Your task to perform on an android device: open app "Gmail" (install if not already installed), go to login, and select forgot password Image 0: 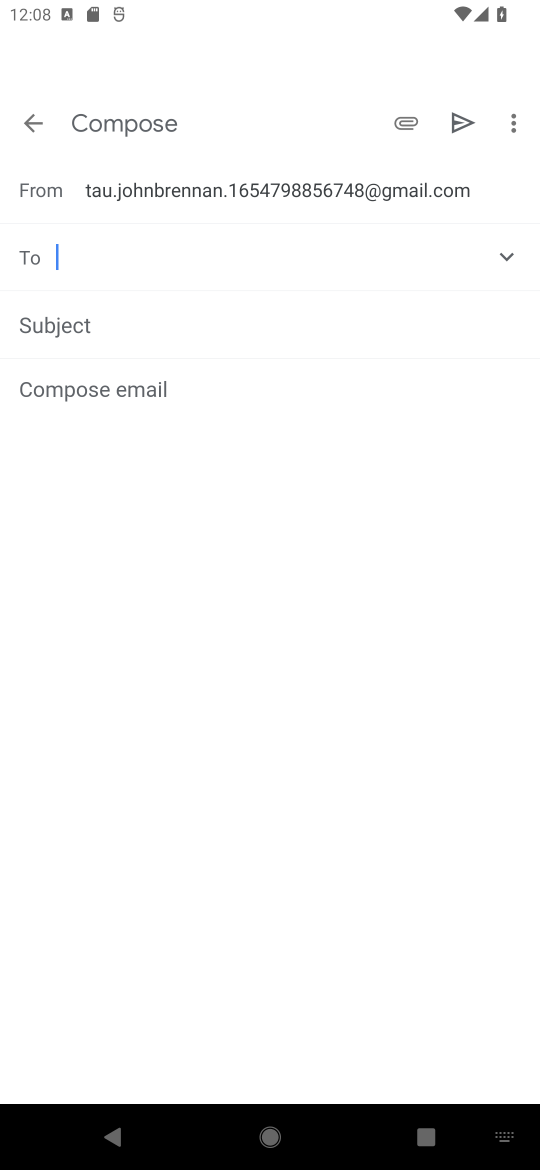
Step 0: press home button
Your task to perform on an android device: open app "Gmail" (install if not already installed), go to login, and select forgot password Image 1: 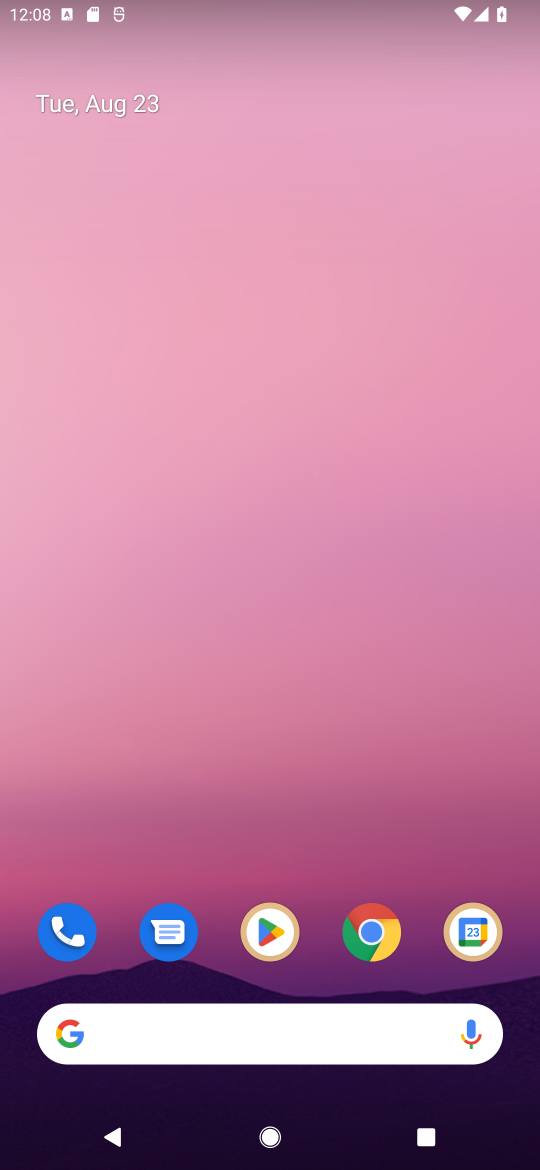
Step 1: click (258, 921)
Your task to perform on an android device: open app "Gmail" (install if not already installed), go to login, and select forgot password Image 2: 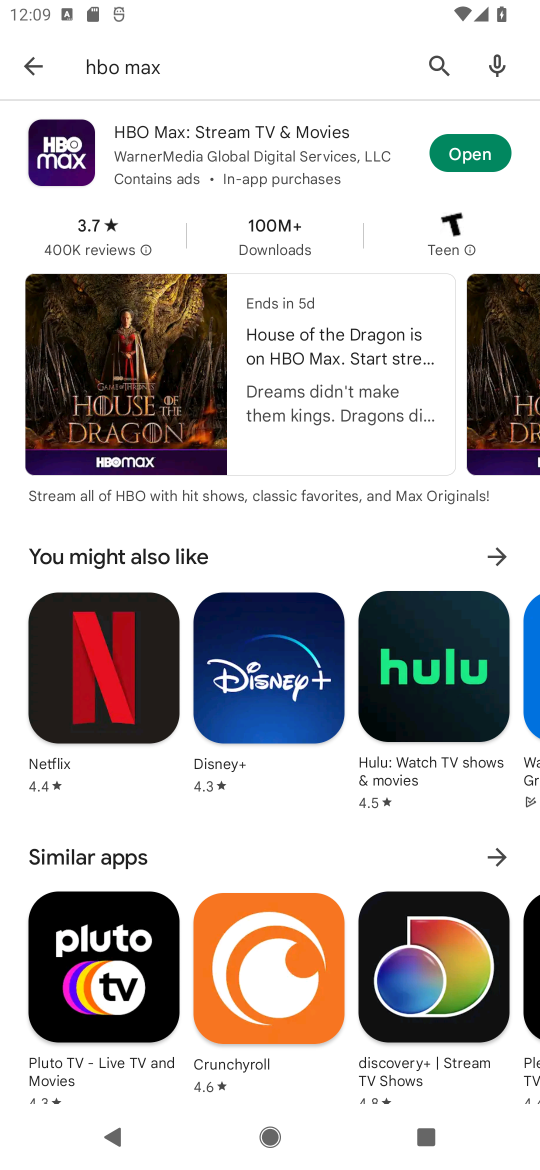
Step 2: click (435, 59)
Your task to perform on an android device: open app "Gmail" (install if not already installed), go to login, and select forgot password Image 3: 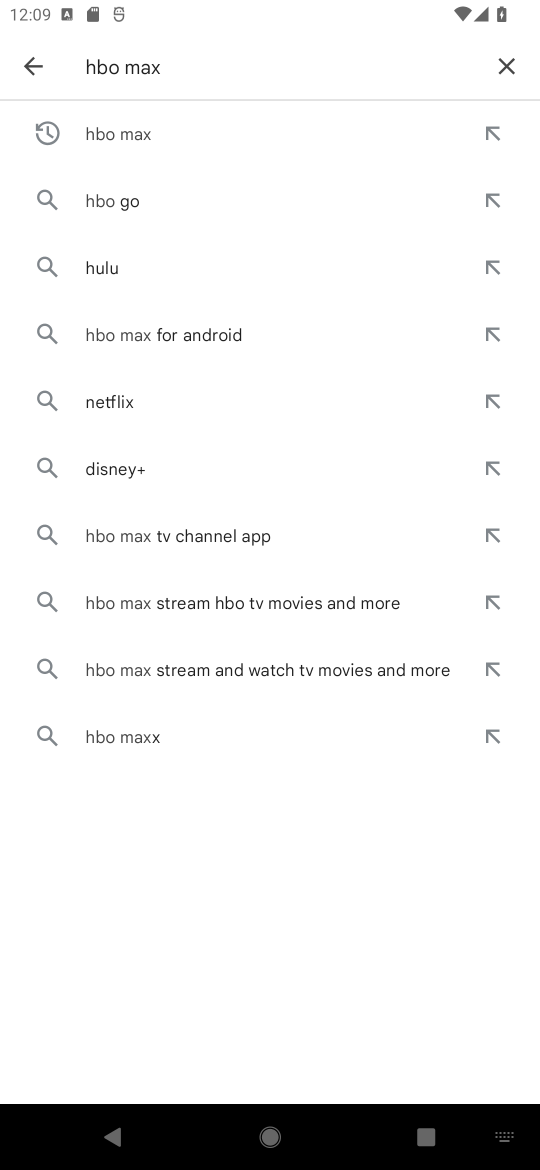
Step 3: click (504, 68)
Your task to perform on an android device: open app "Gmail" (install if not already installed), go to login, and select forgot password Image 4: 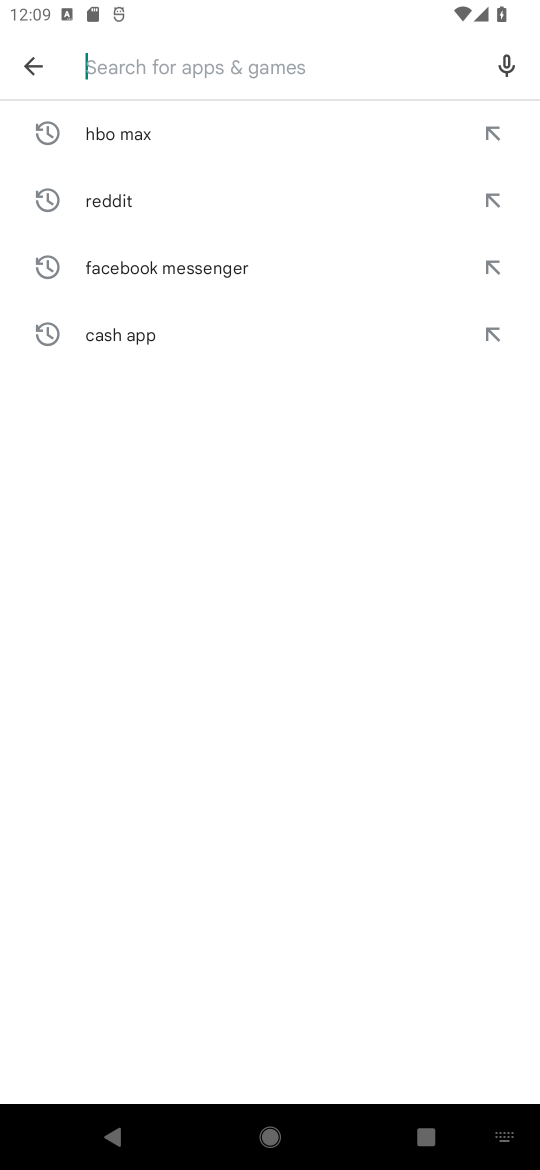
Step 4: click (172, 57)
Your task to perform on an android device: open app "Gmail" (install if not already installed), go to login, and select forgot password Image 5: 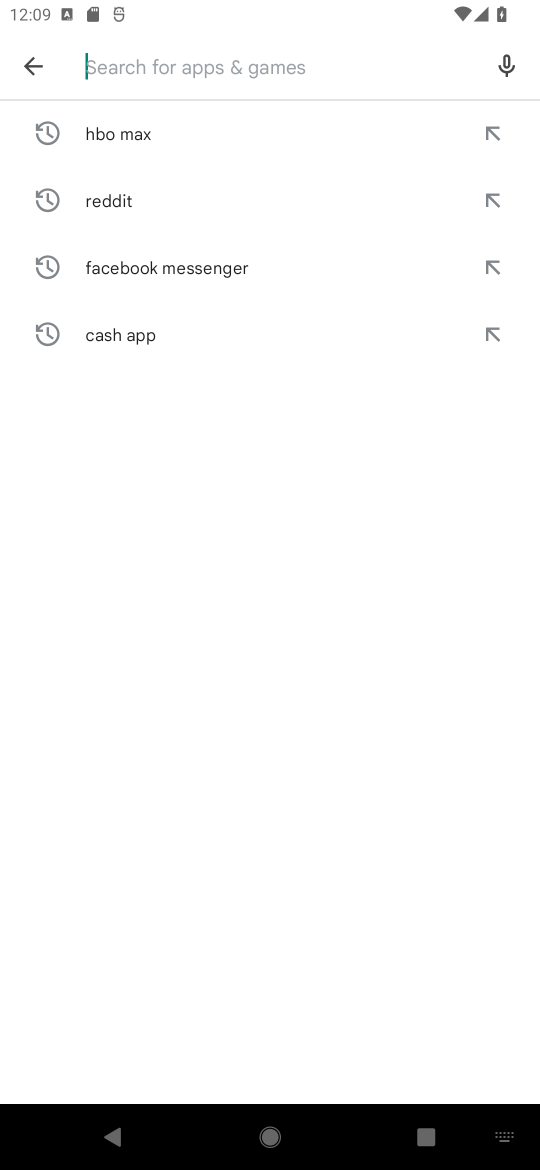
Step 5: type "gmail"
Your task to perform on an android device: open app "Gmail" (install if not already installed), go to login, and select forgot password Image 6: 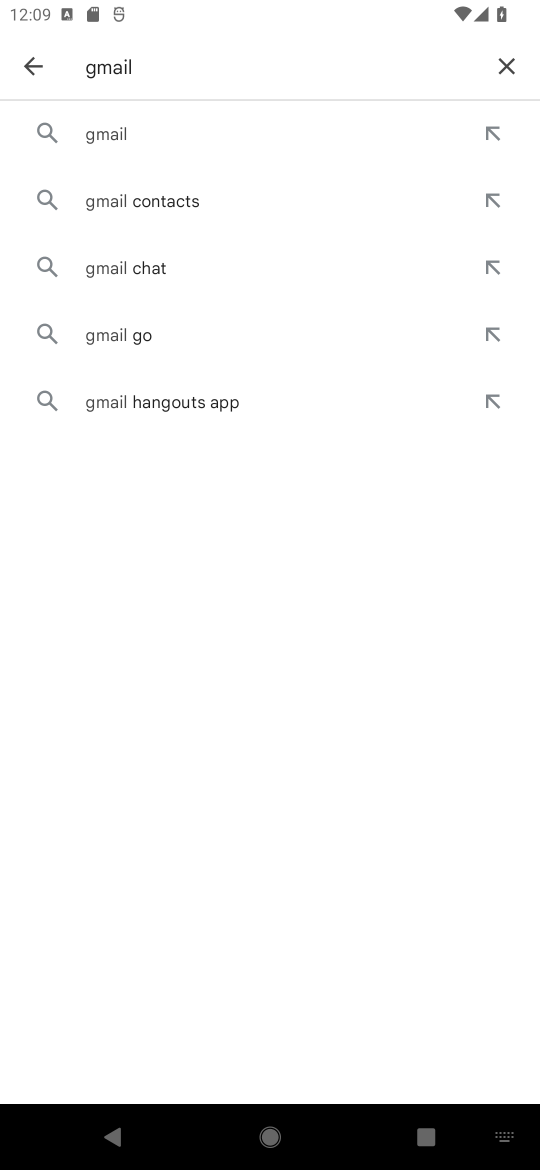
Step 6: click (120, 133)
Your task to perform on an android device: open app "Gmail" (install if not already installed), go to login, and select forgot password Image 7: 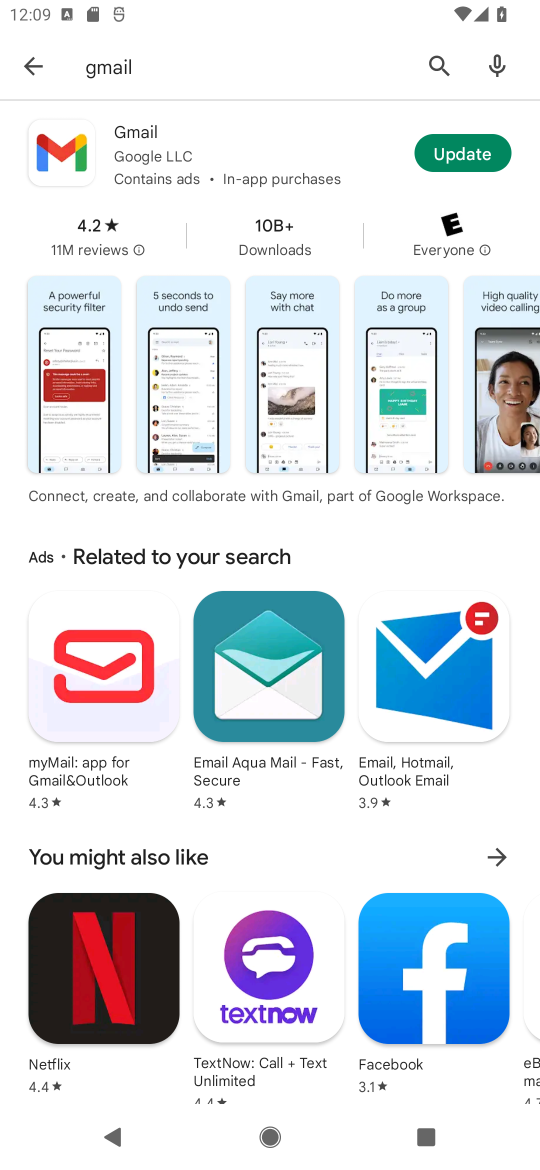
Step 7: click (258, 157)
Your task to perform on an android device: open app "Gmail" (install if not already installed), go to login, and select forgot password Image 8: 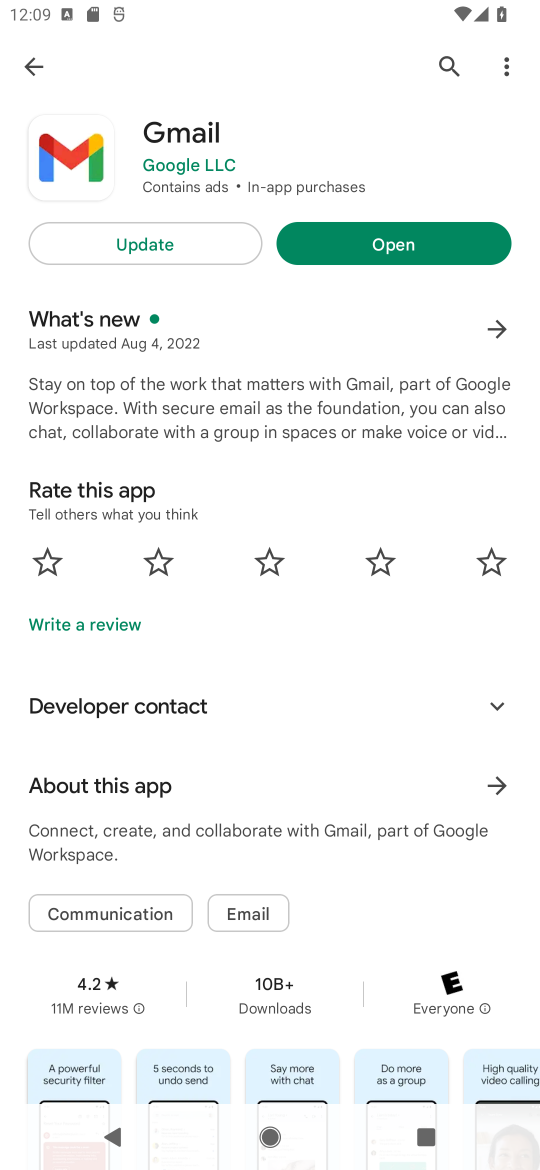
Step 8: click (402, 239)
Your task to perform on an android device: open app "Gmail" (install if not already installed), go to login, and select forgot password Image 9: 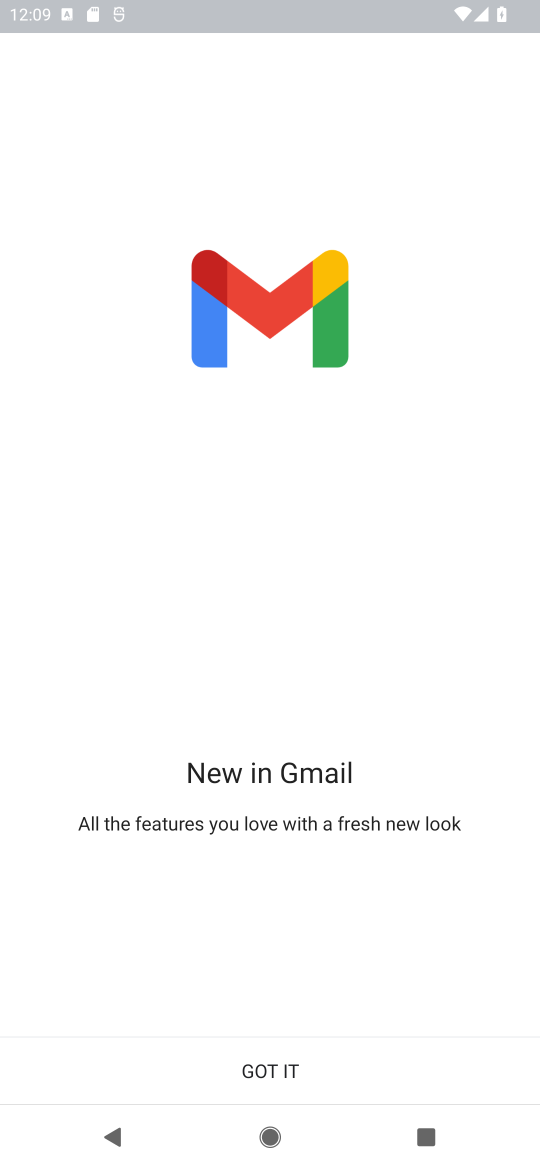
Step 9: click (242, 1059)
Your task to perform on an android device: open app "Gmail" (install if not already installed), go to login, and select forgot password Image 10: 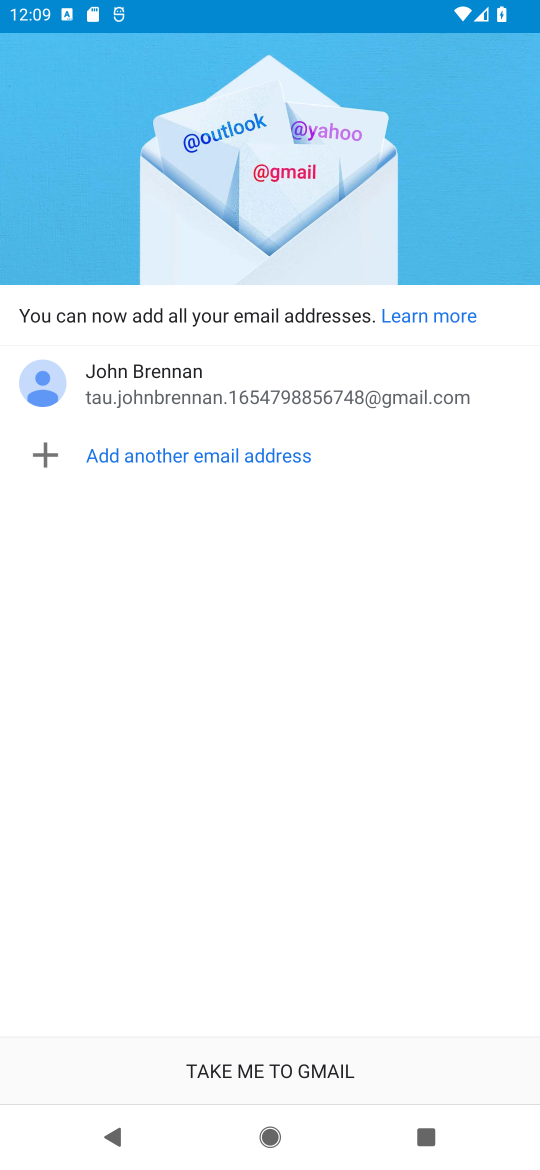
Step 10: click (250, 1072)
Your task to perform on an android device: open app "Gmail" (install if not already installed), go to login, and select forgot password Image 11: 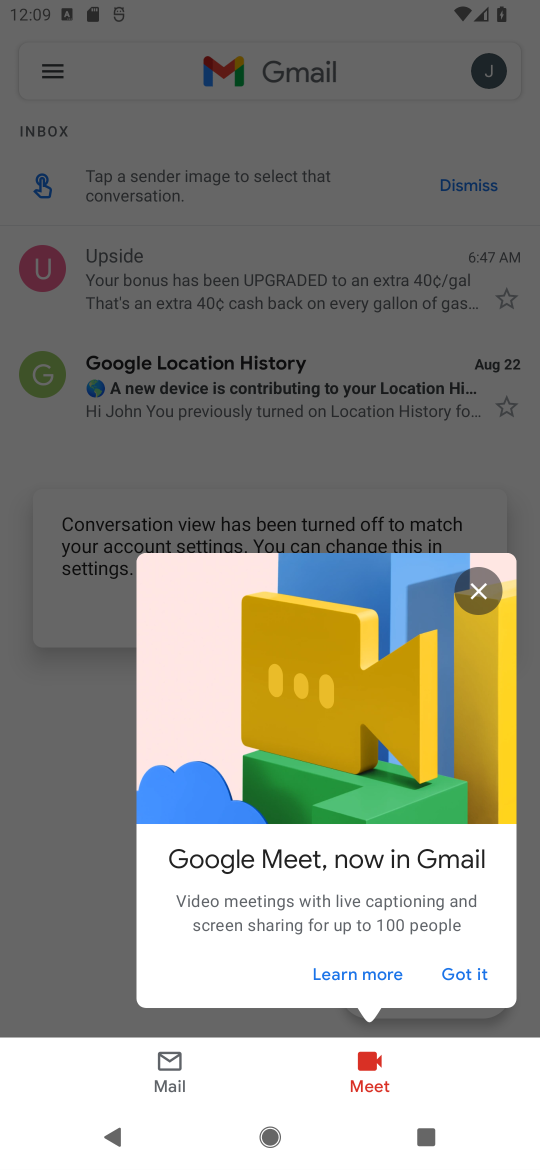
Step 11: click (479, 587)
Your task to perform on an android device: open app "Gmail" (install if not already installed), go to login, and select forgot password Image 12: 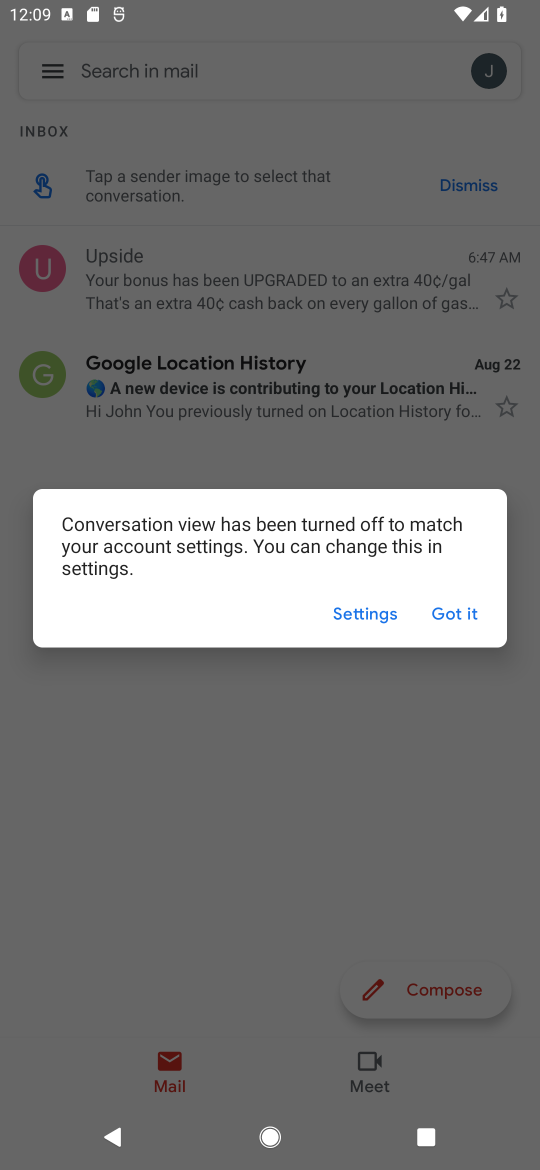
Step 12: click (454, 608)
Your task to perform on an android device: open app "Gmail" (install if not already installed), go to login, and select forgot password Image 13: 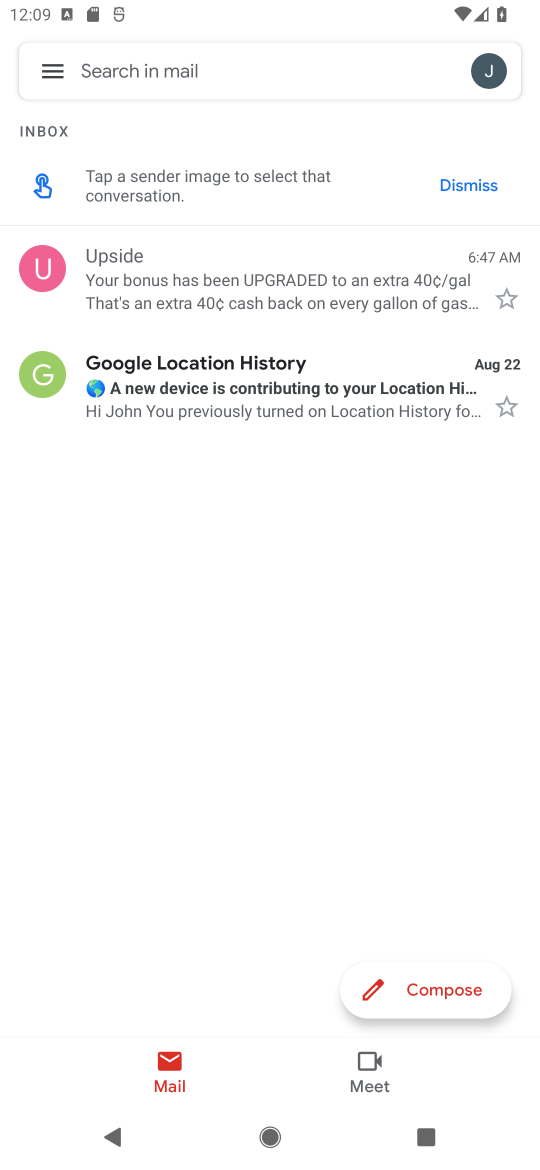
Step 13: task complete